Your task to perform on an android device: clear all cookies in the chrome app Image 0: 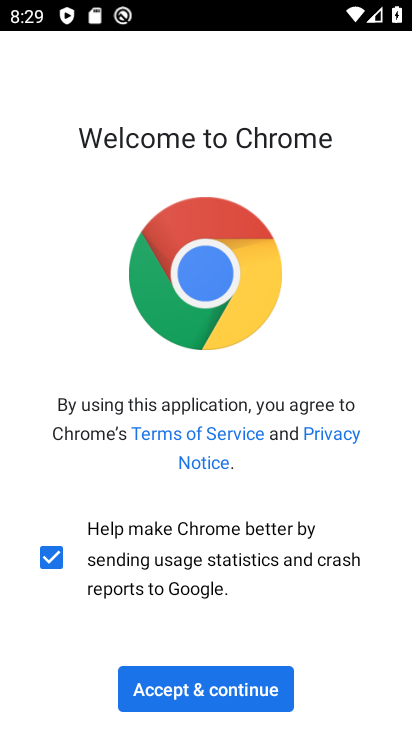
Step 0: press home button
Your task to perform on an android device: clear all cookies in the chrome app Image 1: 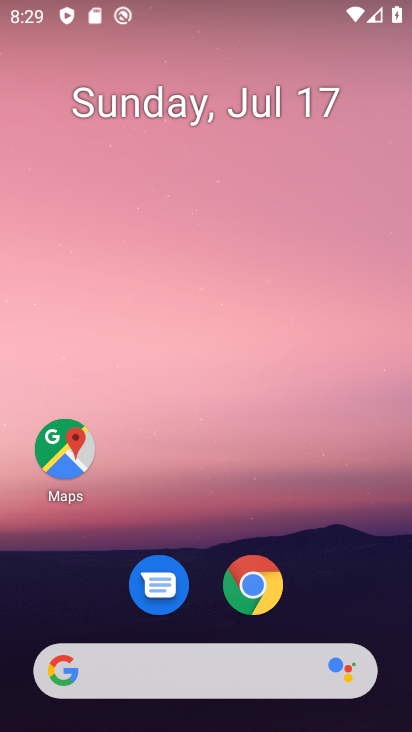
Step 1: click (253, 589)
Your task to perform on an android device: clear all cookies in the chrome app Image 2: 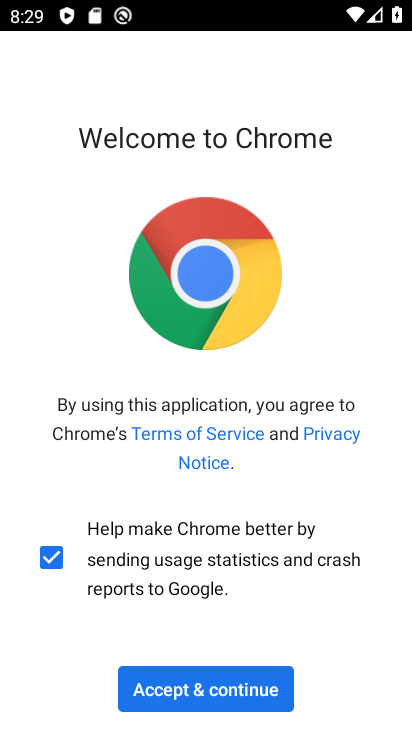
Step 2: click (186, 683)
Your task to perform on an android device: clear all cookies in the chrome app Image 3: 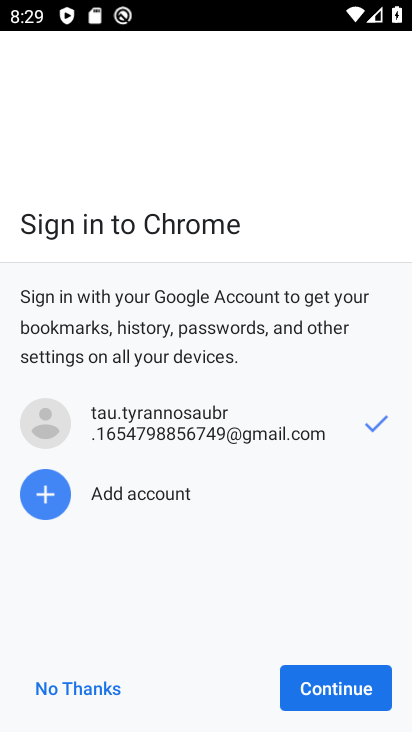
Step 3: click (325, 688)
Your task to perform on an android device: clear all cookies in the chrome app Image 4: 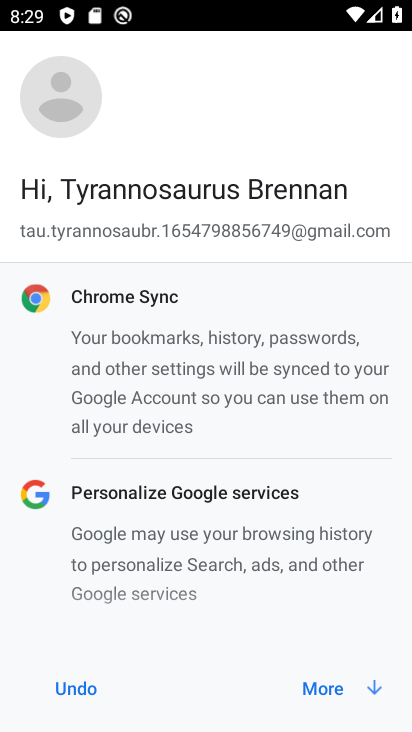
Step 4: click (328, 687)
Your task to perform on an android device: clear all cookies in the chrome app Image 5: 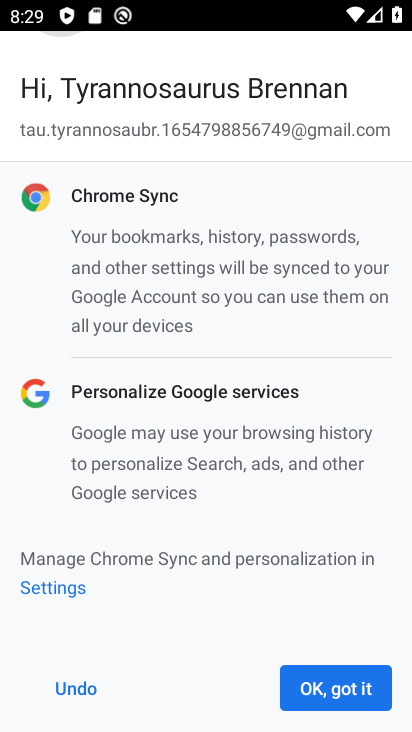
Step 5: click (326, 687)
Your task to perform on an android device: clear all cookies in the chrome app Image 6: 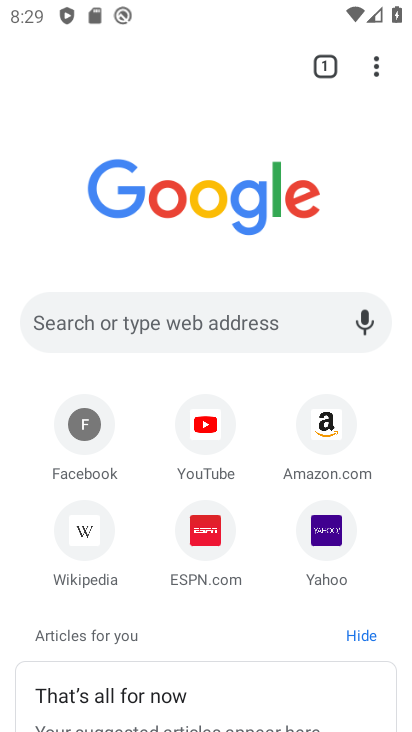
Step 6: drag from (379, 70) to (253, 565)
Your task to perform on an android device: clear all cookies in the chrome app Image 7: 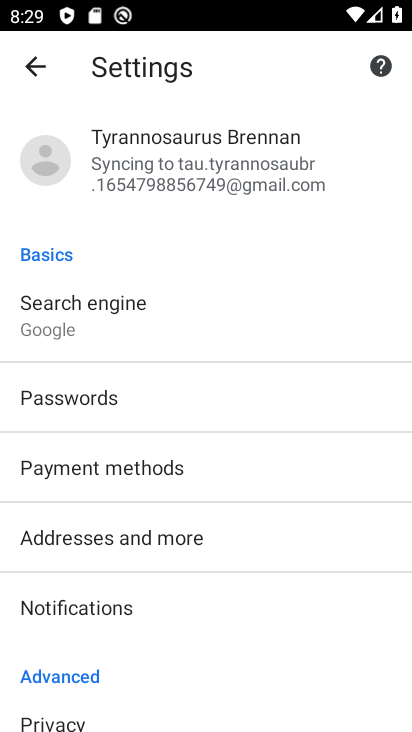
Step 7: drag from (200, 613) to (300, 126)
Your task to perform on an android device: clear all cookies in the chrome app Image 8: 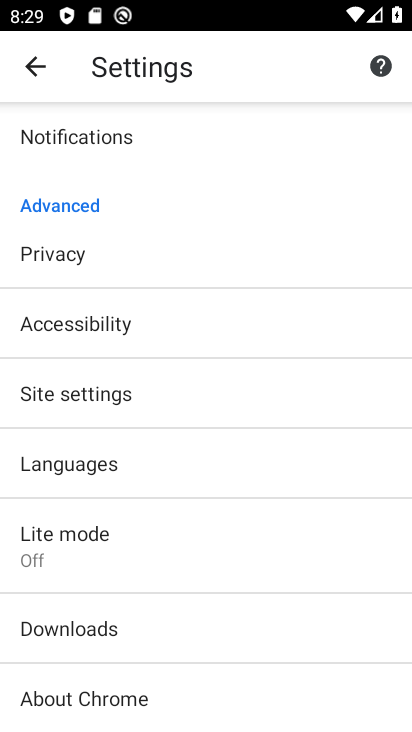
Step 8: click (57, 248)
Your task to perform on an android device: clear all cookies in the chrome app Image 9: 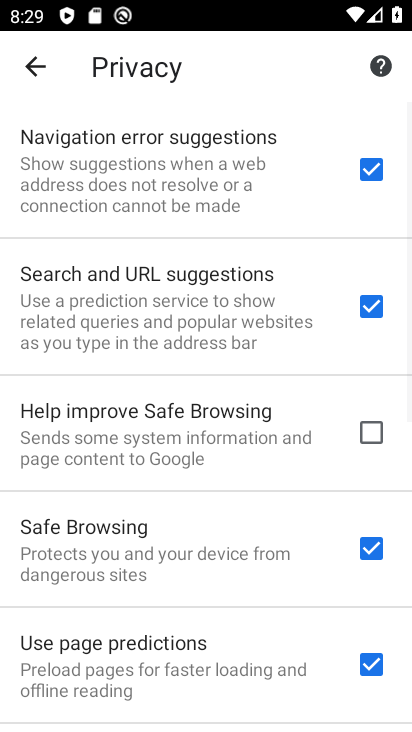
Step 9: drag from (225, 678) to (351, 117)
Your task to perform on an android device: clear all cookies in the chrome app Image 10: 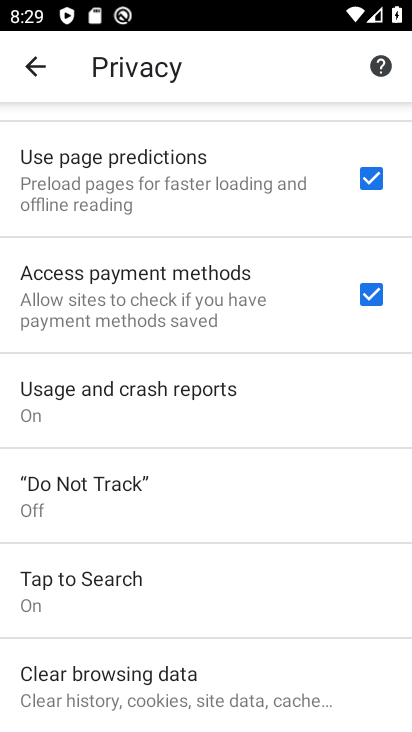
Step 10: click (167, 687)
Your task to perform on an android device: clear all cookies in the chrome app Image 11: 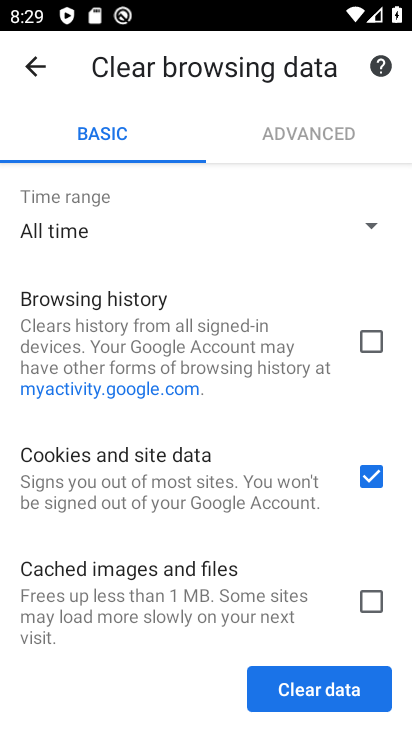
Step 11: click (347, 689)
Your task to perform on an android device: clear all cookies in the chrome app Image 12: 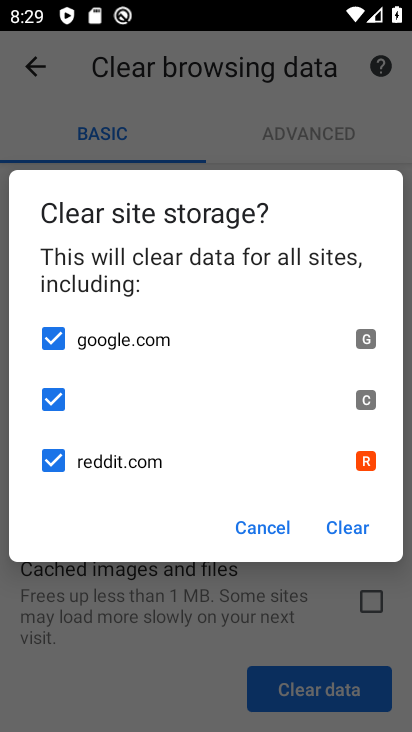
Step 12: click (353, 529)
Your task to perform on an android device: clear all cookies in the chrome app Image 13: 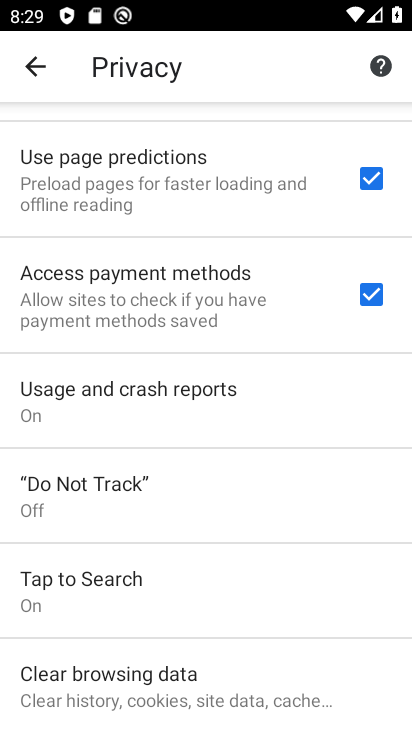
Step 13: task complete